Your task to perform on an android device: What's on my calendar tomorrow? Image 0: 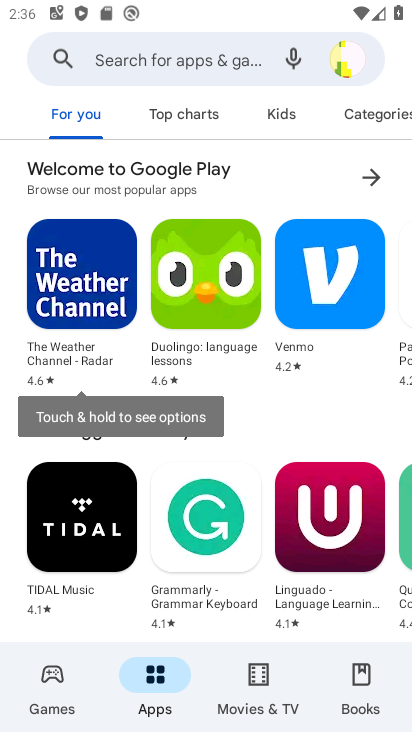
Step 0: press home button
Your task to perform on an android device: What's on my calendar tomorrow? Image 1: 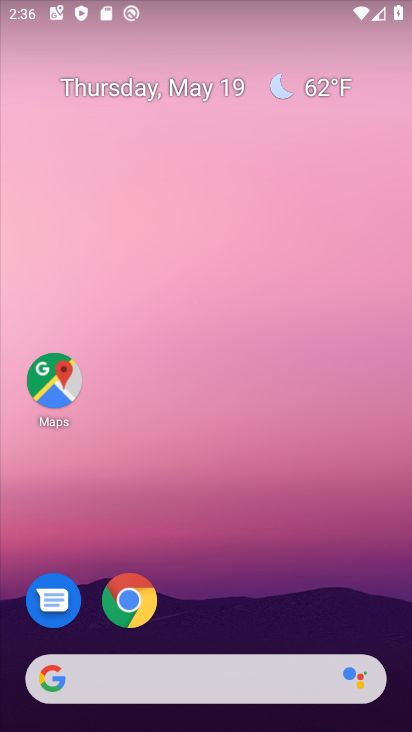
Step 1: drag from (23, 586) to (230, 213)
Your task to perform on an android device: What's on my calendar tomorrow? Image 2: 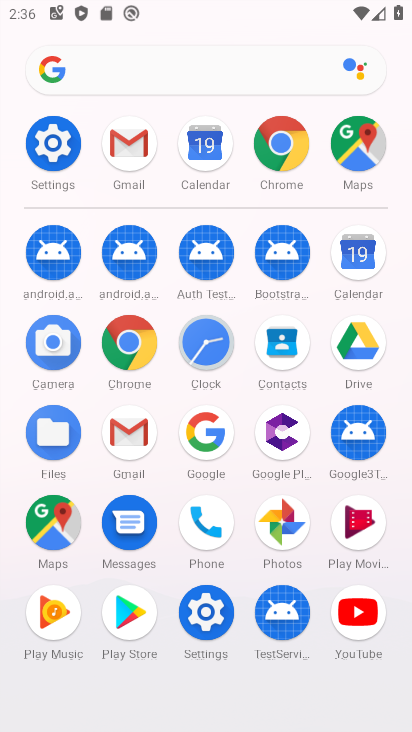
Step 2: click (357, 258)
Your task to perform on an android device: What's on my calendar tomorrow? Image 3: 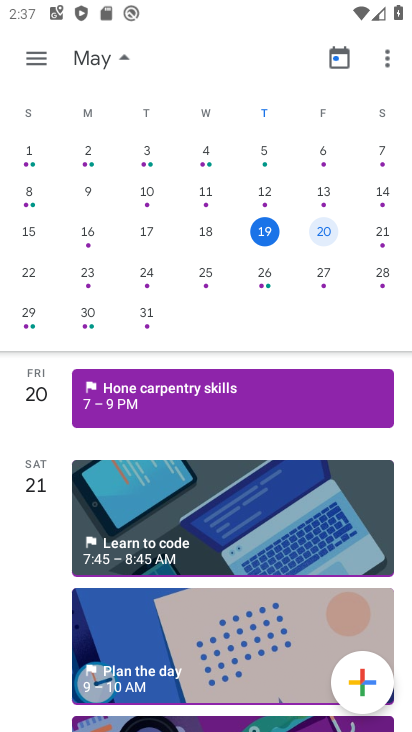
Step 3: click (322, 229)
Your task to perform on an android device: What's on my calendar tomorrow? Image 4: 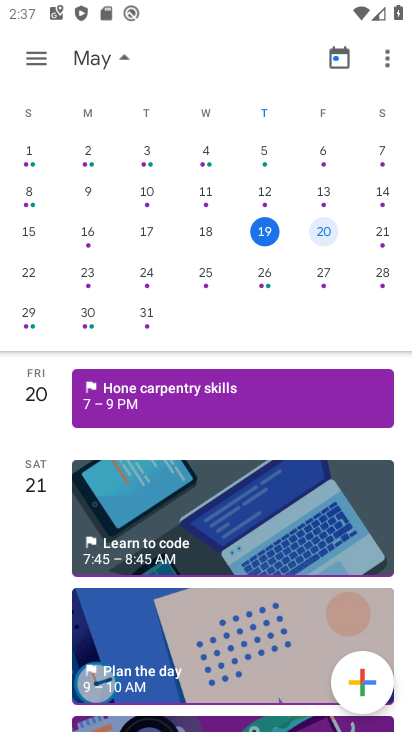
Step 4: task complete